Your task to perform on an android device: change your default location settings in chrome Image 0: 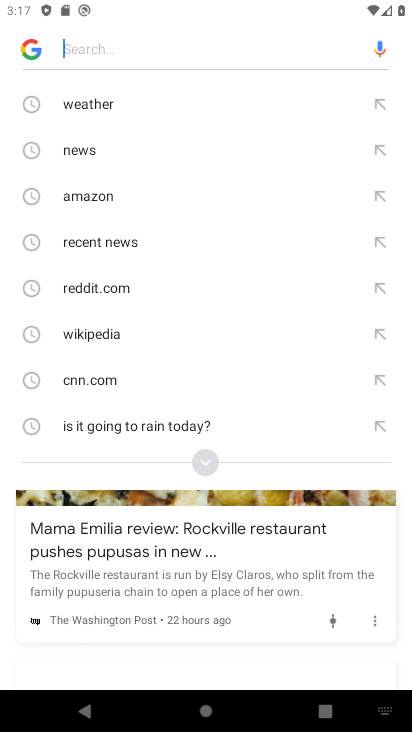
Step 0: press home button
Your task to perform on an android device: change your default location settings in chrome Image 1: 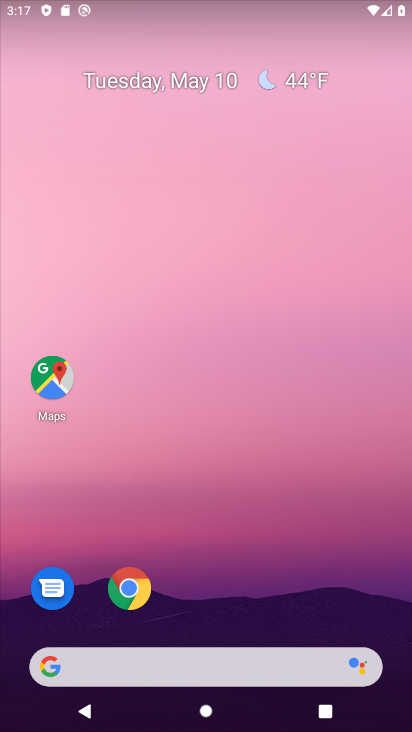
Step 1: click (113, 587)
Your task to perform on an android device: change your default location settings in chrome Image 2: 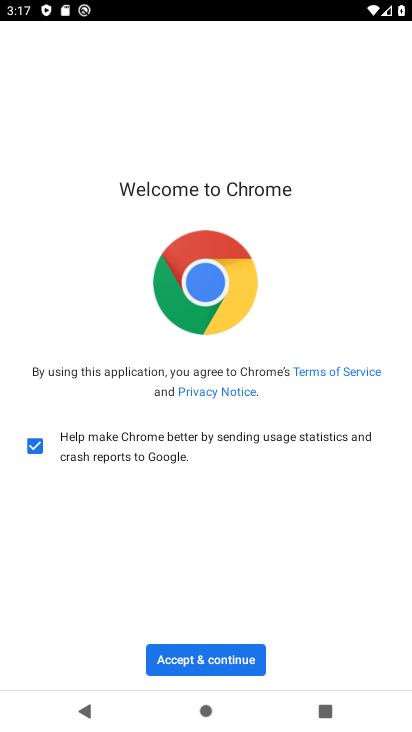
Step 2: click (220, 655)
Your task to perform on an android device: change your default location settings in chrome Image 3: 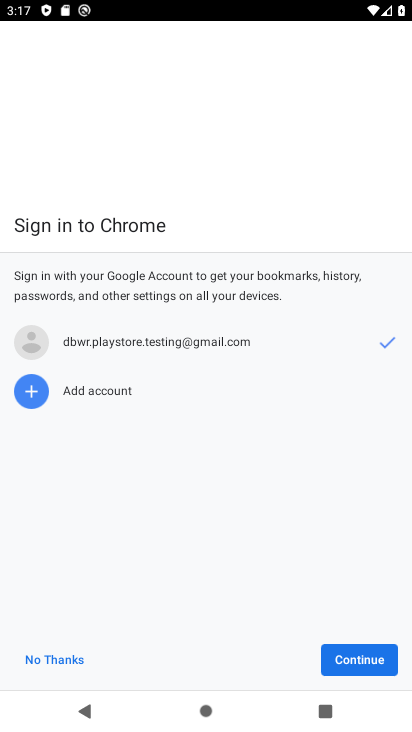
Step 3: click (368, 663)
Your task to perform on an android device: change your default location settings in chrome Image 4: 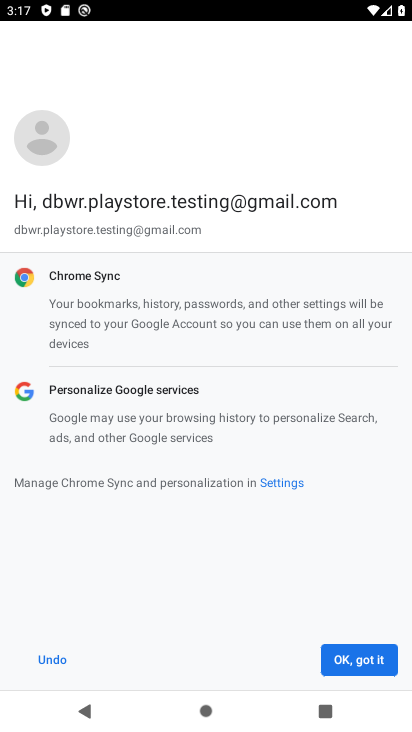
Step 4: click (359, 661)
Your task to perform on an android device: change your default location settings in chrome Image 5: 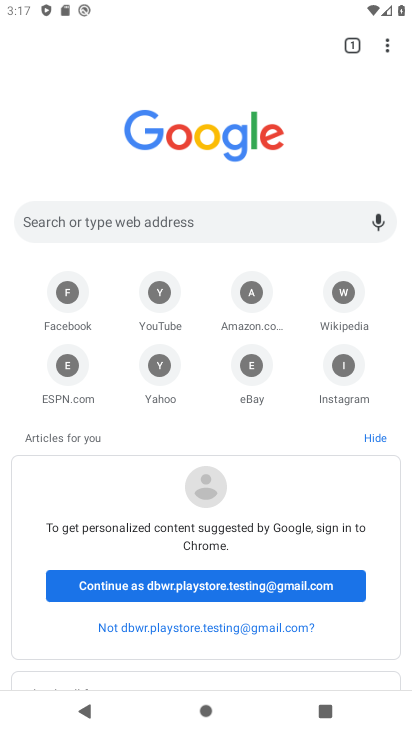
Step 5: click (382, 49)
Your task to perform on an android device: change your default location settings in chrome Image 6: 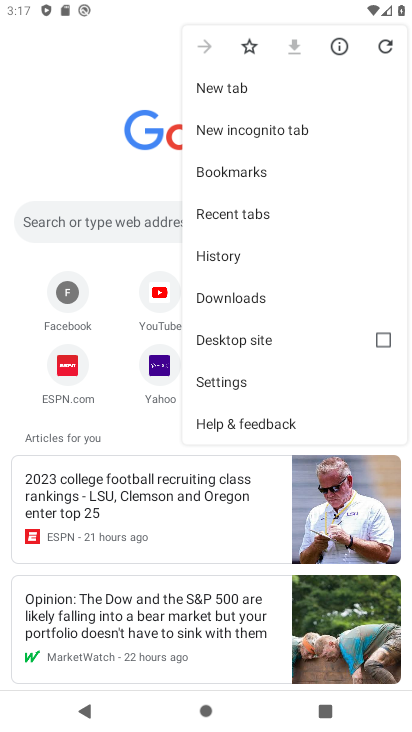
Step 6: click (222, 374)
Your task to perform on an android device: change your default location settings in chrome Image 7: 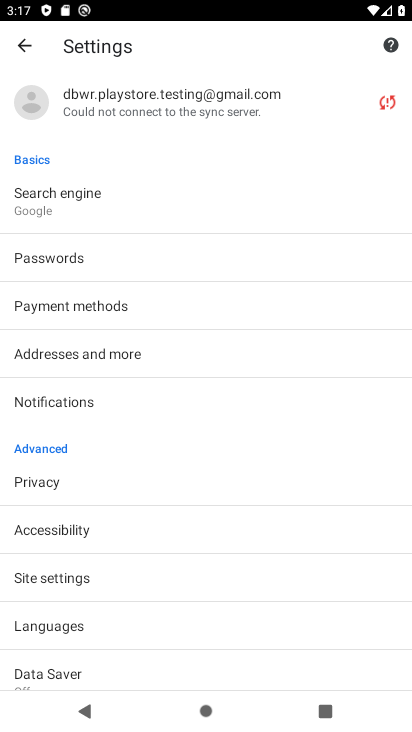
Step 7: click (108, 581)
Your task to perform on an android device: change your default location settings in chrome Image 8: 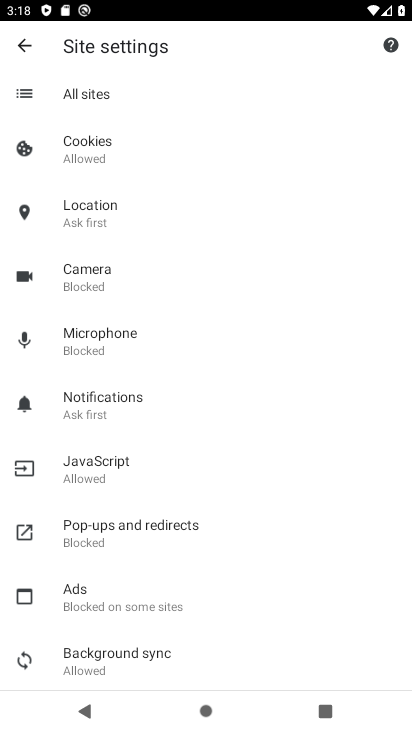
Step 8: drag from (125, 518) to (147, 188)
Your task to perform on an android device: change your default location settings in chrome Image 9: 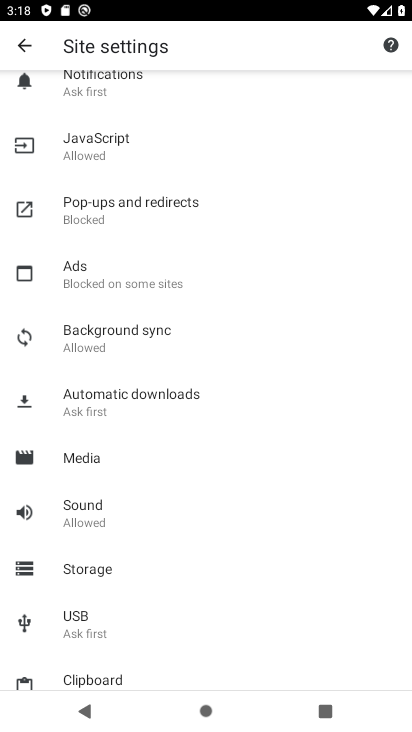
Step 9: drag from (128, 139) to (186, 539)
Your task to perform on an android device: change your default location settings in chrome Image 10: 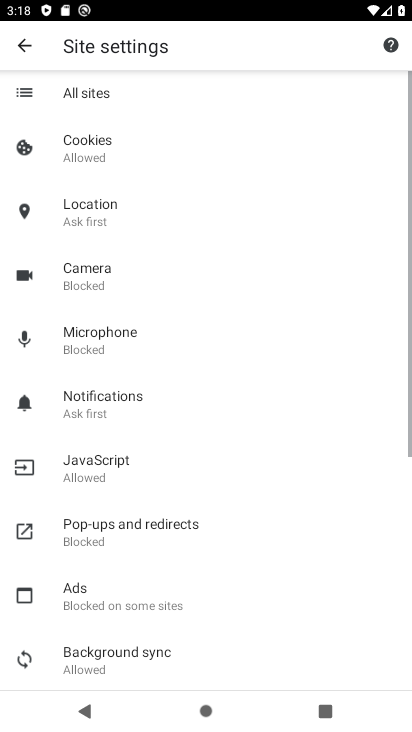
Step 10: click (116, 203)
Your task to perform on an android device: change your default location settings in chrome Image 11: 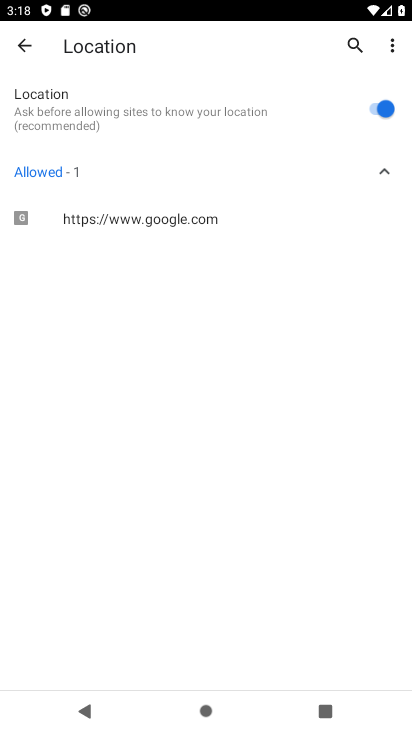
Step 11: click (377, 105)
Your task to perform on an android device: change your default location settings in chrome Image 12: 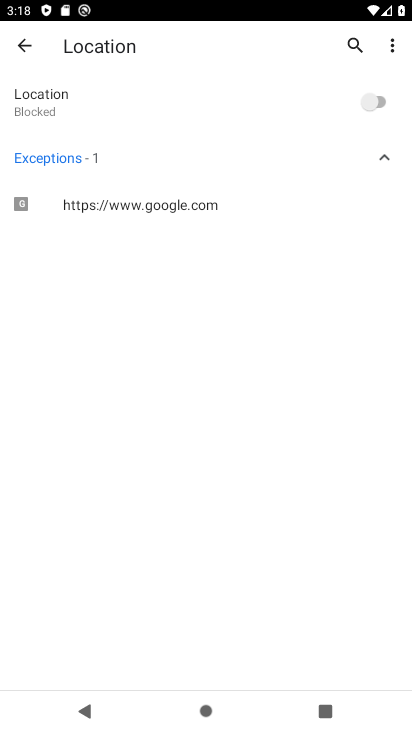
Step 12: task complete